Your task to perform on an android device: Find coffee shops on Maps Image 0: 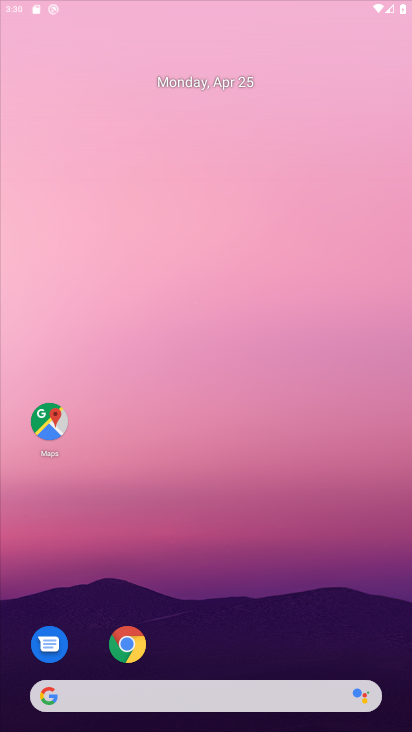
Step 0: click (135, 630)
Your task to perform on an android device: Find coffee shops on Maps Image 1: 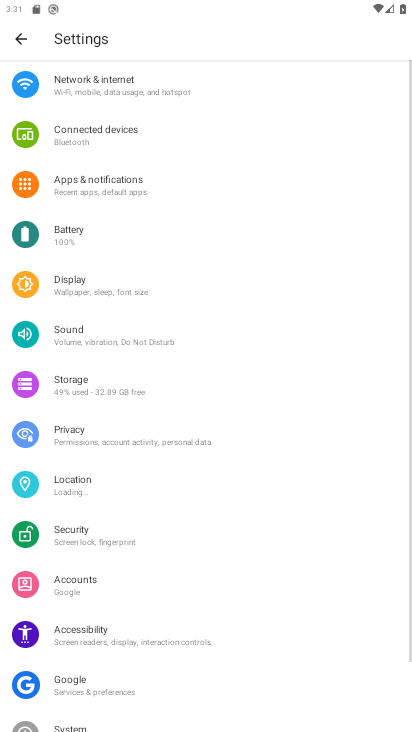
Step 1: press home button
Your task to perform on an android device: Find coffee shops on Maps Image 2: 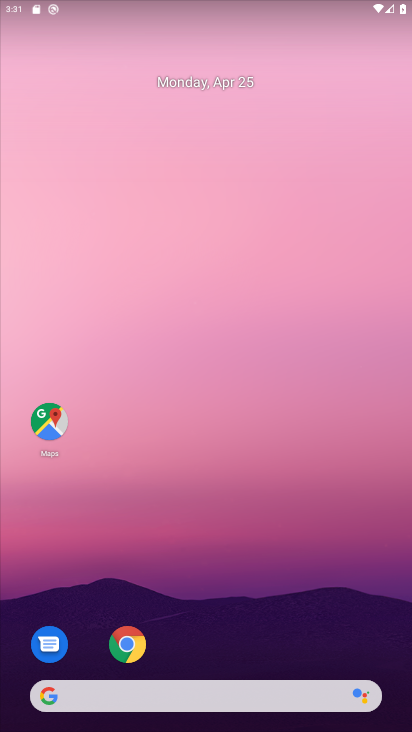
Step 2: click (142, 650)
Your task to perform on an android device: Find coffee shops on Maps Image 3: 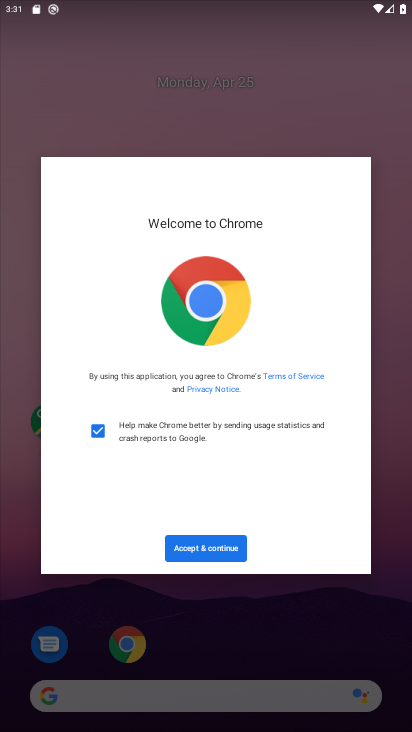
Step 3: press home button
Your task to perform on an android device: Find coffee shops on Maps Image 4: 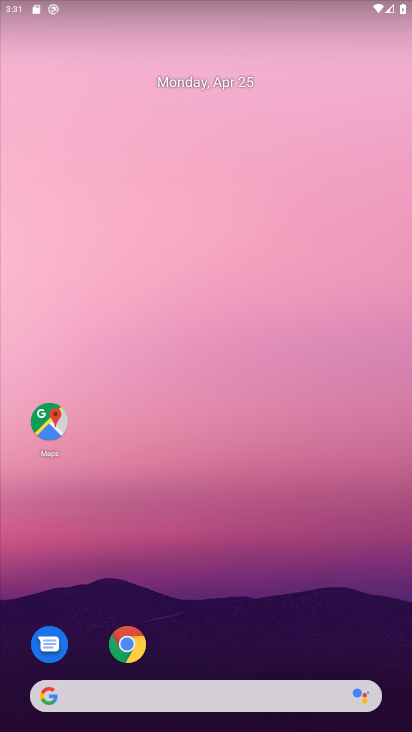
Step 4: click (41, 414)
Your task to perform on an android device: Find coffee shops on Maps Image 5: 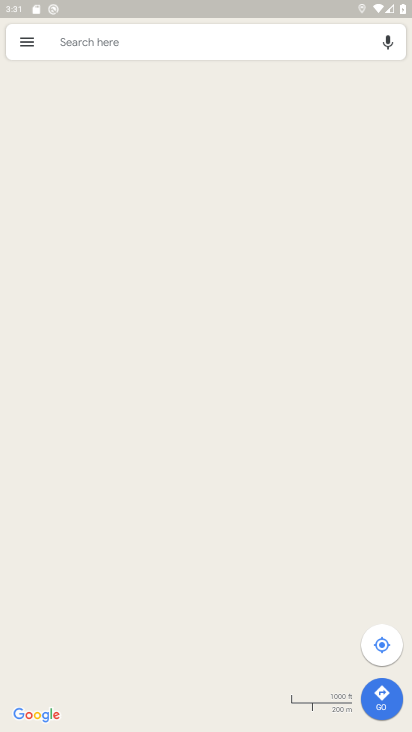
Step 5: click (197, 47)
Your task to perform on an android device: Find coffee shops on Maps Image 6: 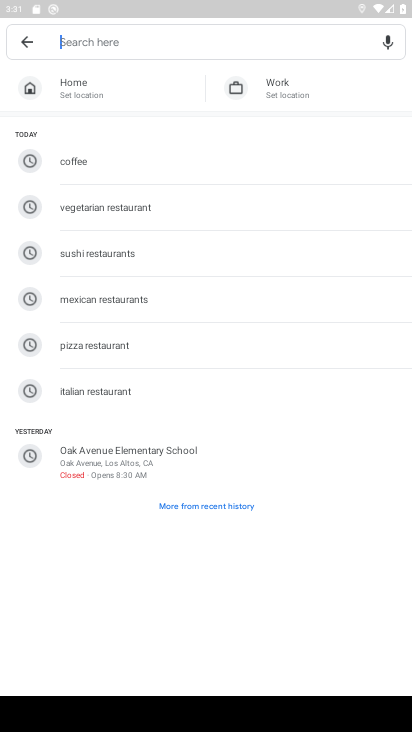
Step 6: type "coffee shops"
Your task to perform on an android device: Find coffee shops on Maps Image 7: 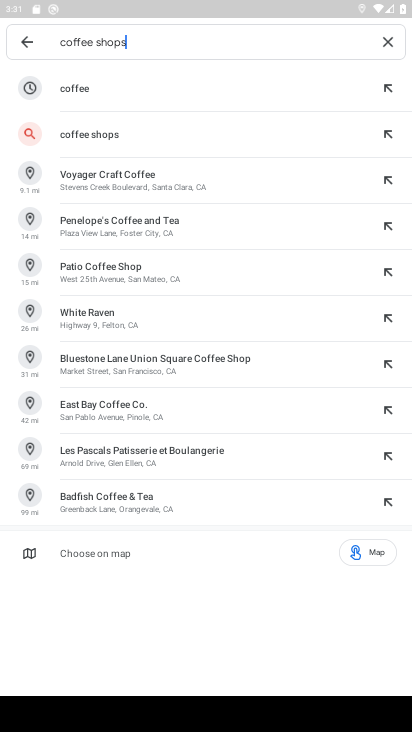
Step 7: click (156, 145)
Your task to perform on an android device: Find coffee shops on Maps Image 8: 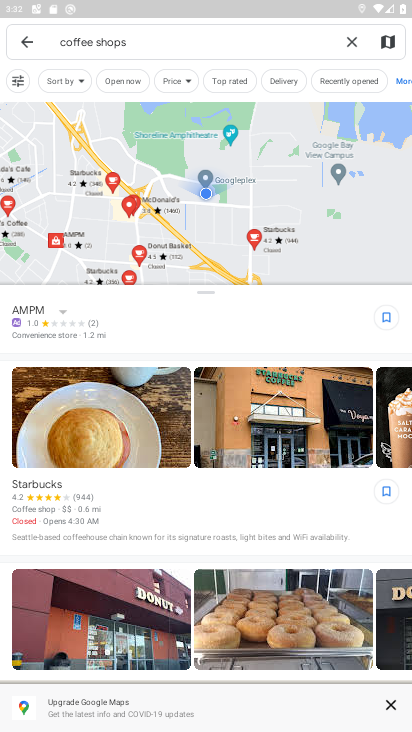
Step 8: task complete